Your task to perform on an android device: create a new album in the google photos Image 0: 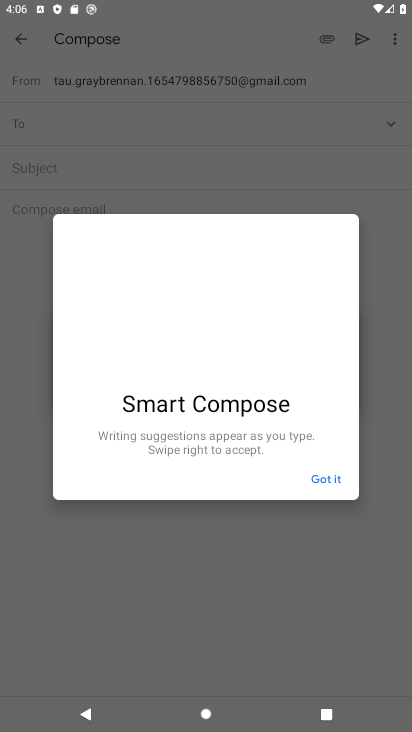
Step 0: press home button
Your task to perform on an android device: create a new album in the google photos Image 1: 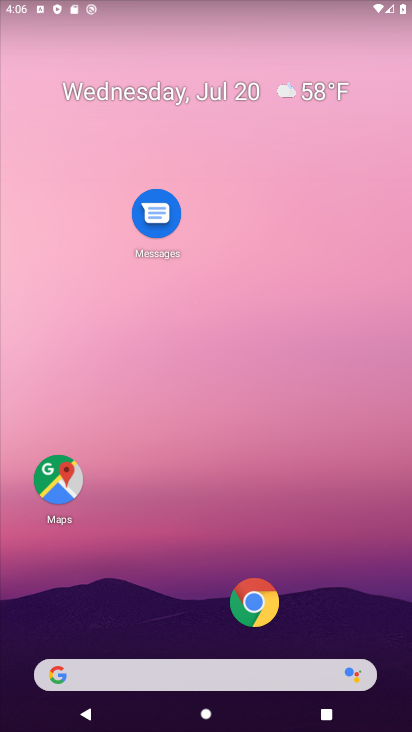
Step 1: drag from (167, 510) to (165, 177)
Your task to perform on an android device: create a new album in the google photos Image 2: 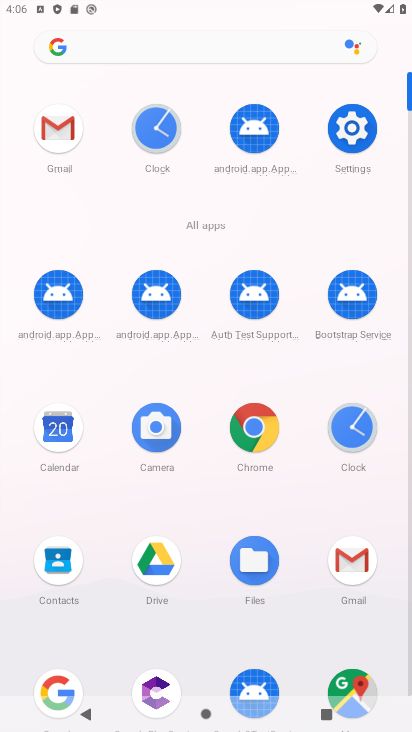
Step 2: drag from (285, 561) to (280, 340)
Your task to perform on an android device: create a new album in the google photos Image 3: 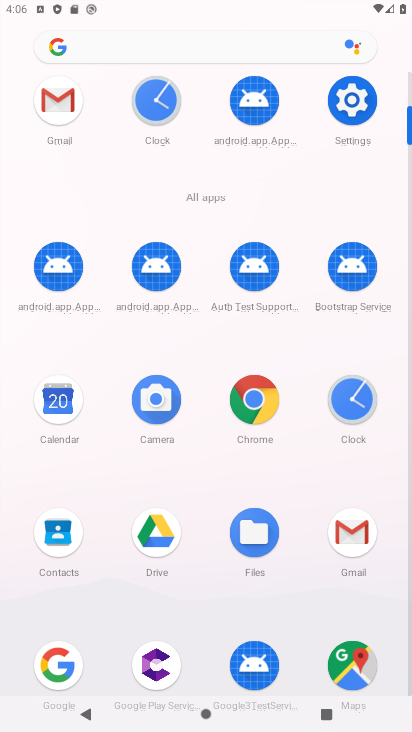
Step 3: drag from (266, 601) to (266, 338)
Your task to perform on an android device: create a new album in the google photos Image 4: 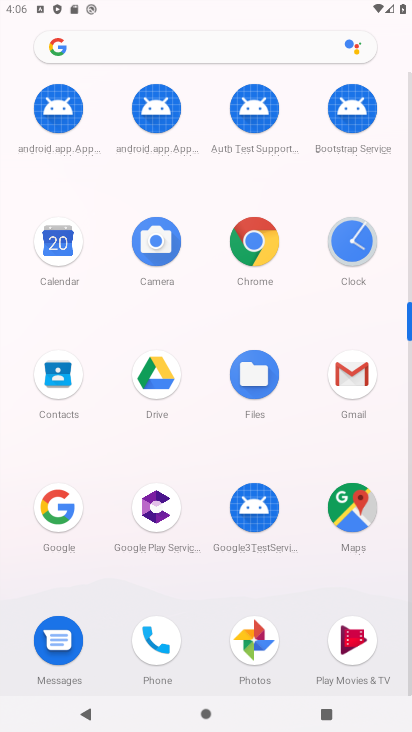
Step 4: click (254, 666)
Your task to perform on an android device: create a new album in the google photos Image 5: 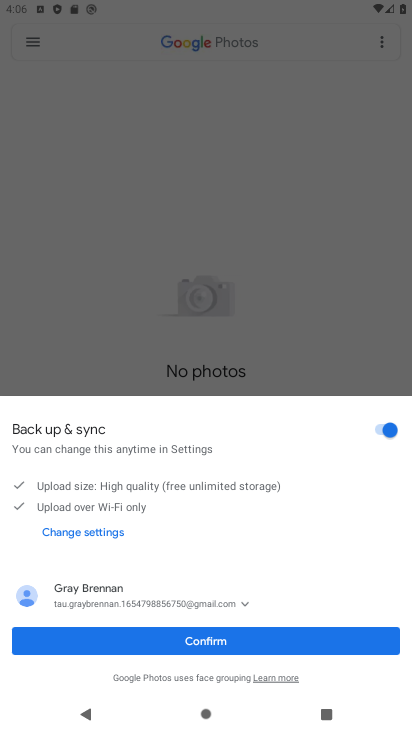
Step 5: click (218, 645)
Your task to perform on an android device: create a new album in the google photos Image 6: 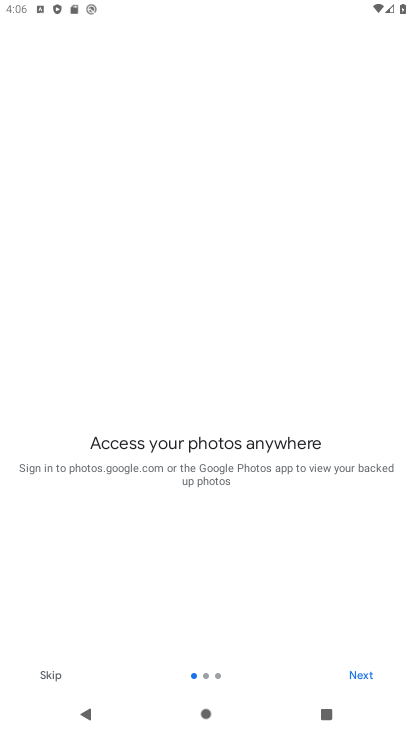
Step 6: click (371, 673)
Your task to perform on an android device: create a new album in the google photos Image 7: 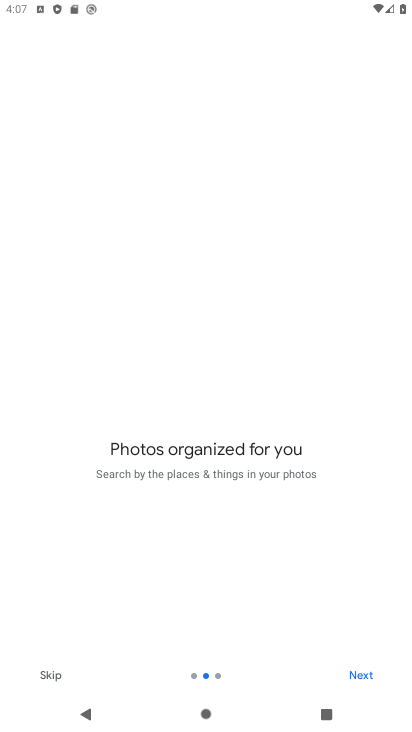
Step 7: click (371, 673)
Your task to perform on an android device: create a new album in the google photos Image 8: 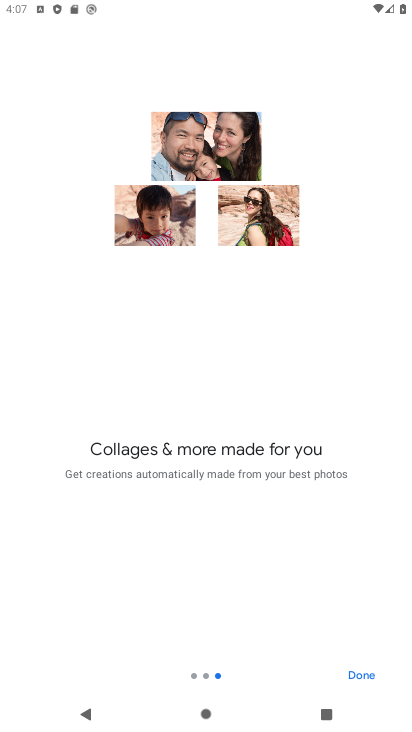
Step 8: click (371, 673)
Your task to perform on an android device: create a new album in the google photos Image 9: 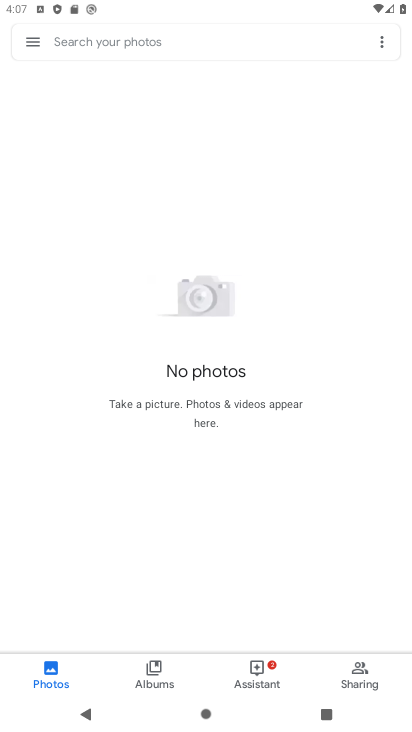
Step 9: click (152, 677)
Your task to perform on an android device: create a new album in the google photos Image 10: 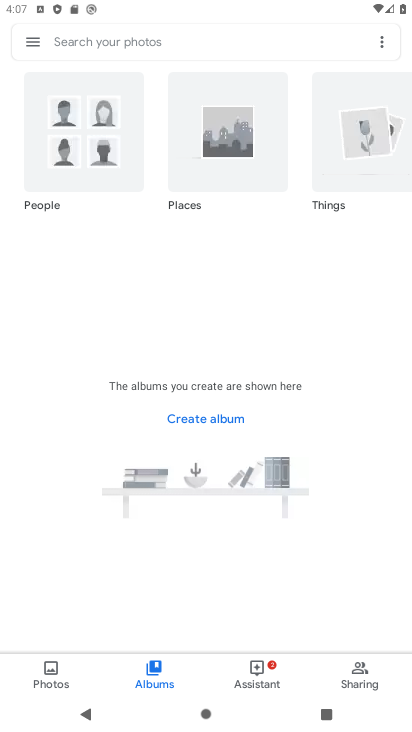
Step 10: task complete